Your task to perform on an android device: turn notification dots on Image 0: 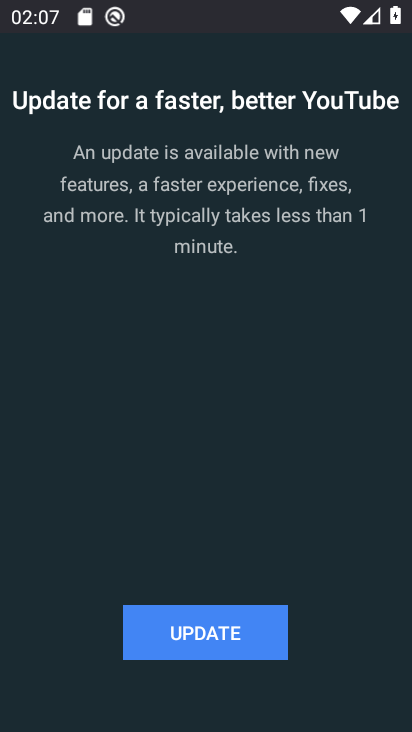
Step 0: press home button
Your task to perform on an android device: turn notification dots on Image 1: 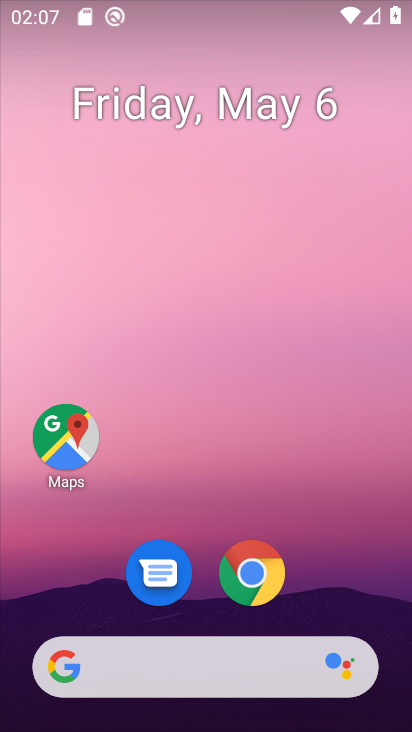
Step 1: drag from (318, 416) to (332, 187)
Your task to perform on an android device: turn notification dots on Image 2: 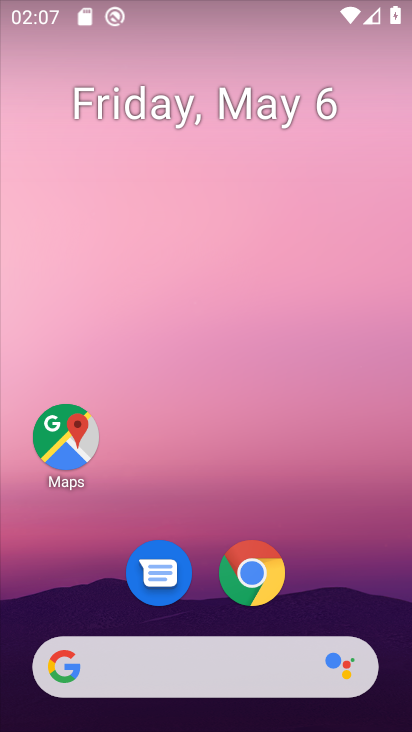
Step 2: drag from (300, 583) to (328, 146)
Your task to perform on an android device: turn notification dots on Image 3: 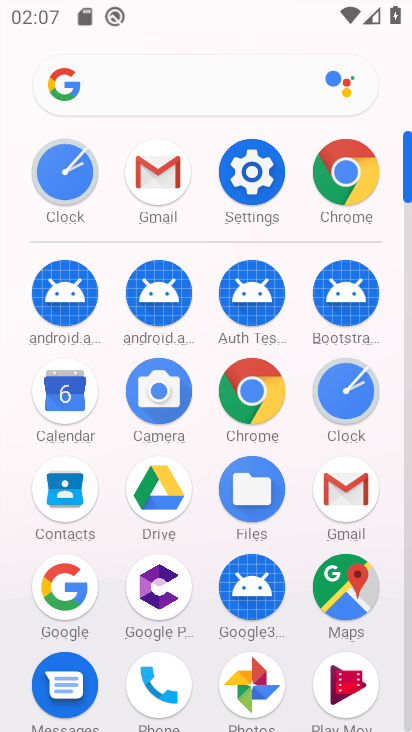
Step 3: click (241, 160)
Your task to perform on an android device: turn notification dots on Image 4: 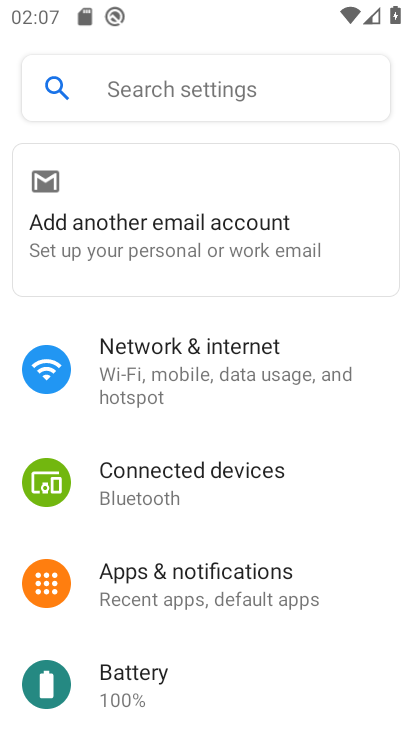
Step 4: click (171, 87)
Your task to perform on an android device: turn notification dots on Image 5: 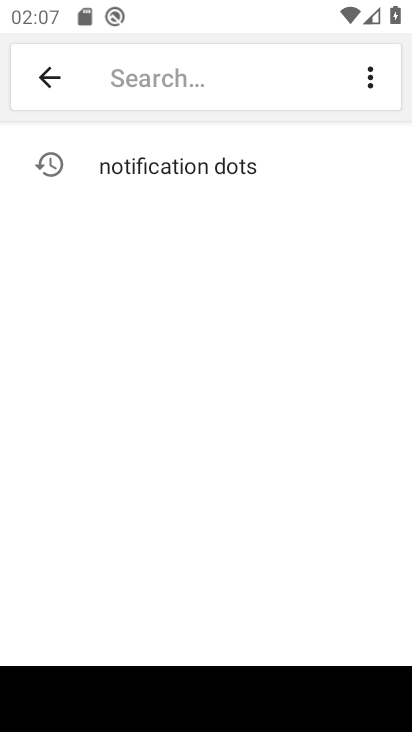
Step 5: click (238, 174)
Your task to perform on an android device: turn notification dots on Image 6: 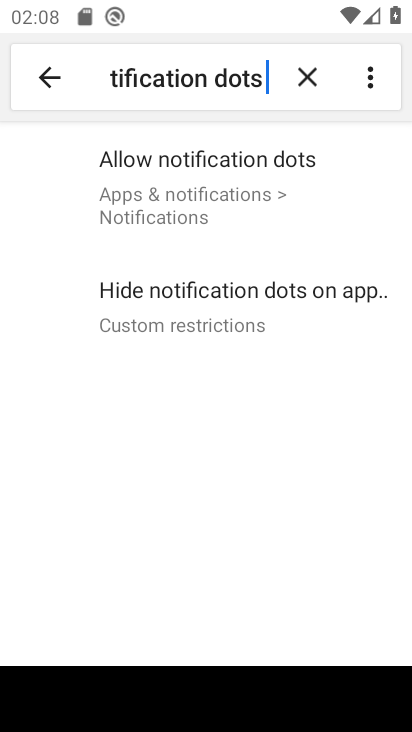
Step 6: click (238, 172)
Your task to perform on an android device: turn notification dots on Image 7: 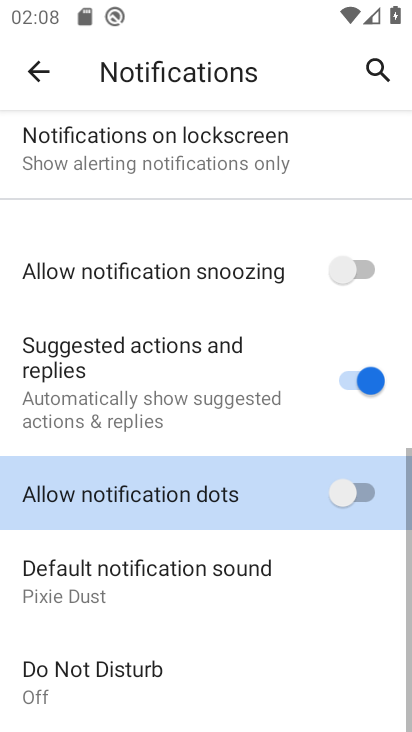
Step 7: click (370, 489)
Your task to perform on an android device: turn notification dots on Image 8: 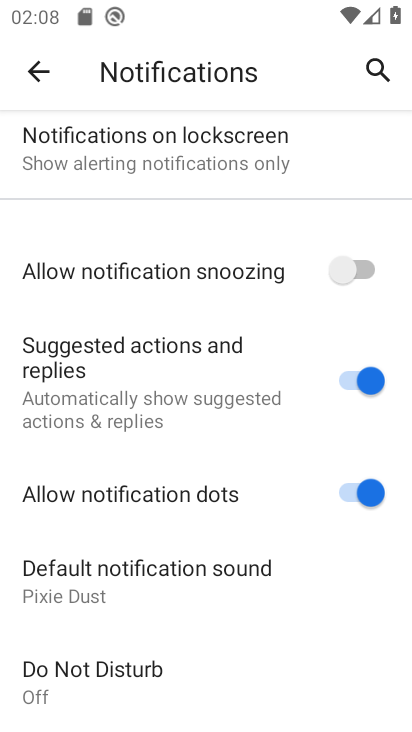
Step 8: task complete